Your task to perform on an android device: Go to Google Image 0: 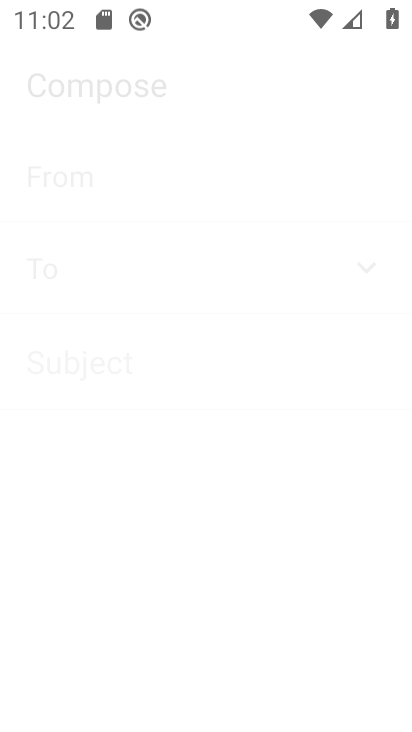
Step 0: drag from (188, 596) to (223, 74)
Your task to perform on an android device: Go to Google Image 1: 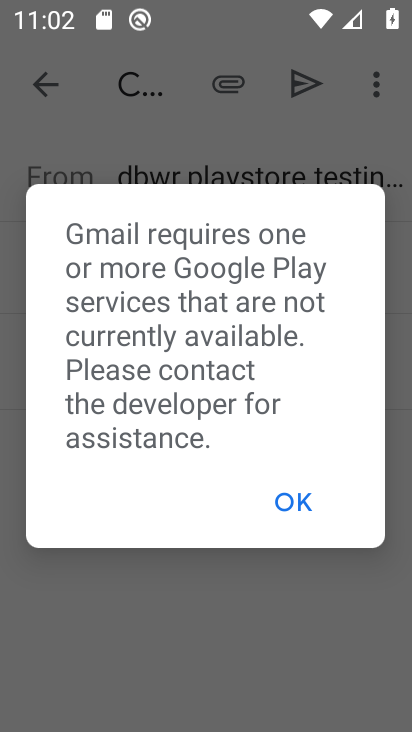
Step 1: press home button
Your task to perform on an android device: Go to Google Image 2: 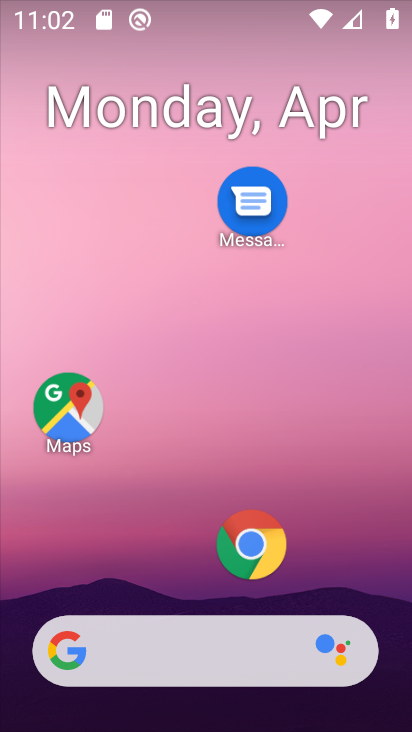
Step 2: drag from (192, 581) to (220, 86)
Your task to perform on an android device: Go to Google Image 3: 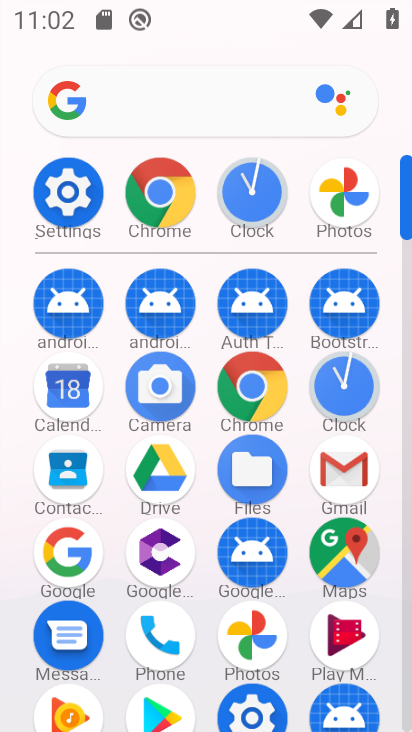
Step 3: click (63, 547)
Your task to perform on an android device: Go to Google Image 4: 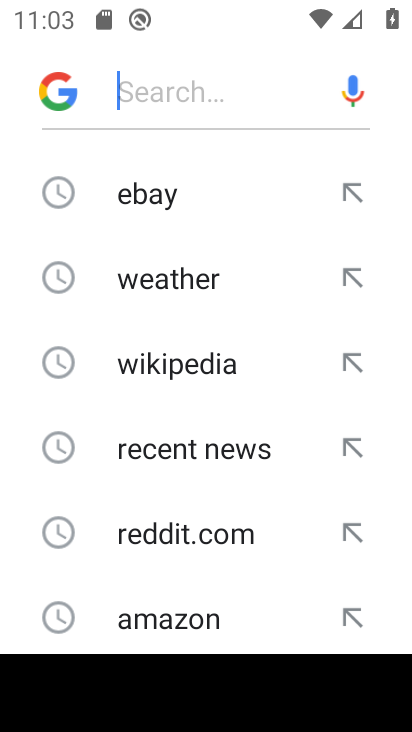
Step 4: task complete